Your task to perform on an android device: toggle location history Image 0: 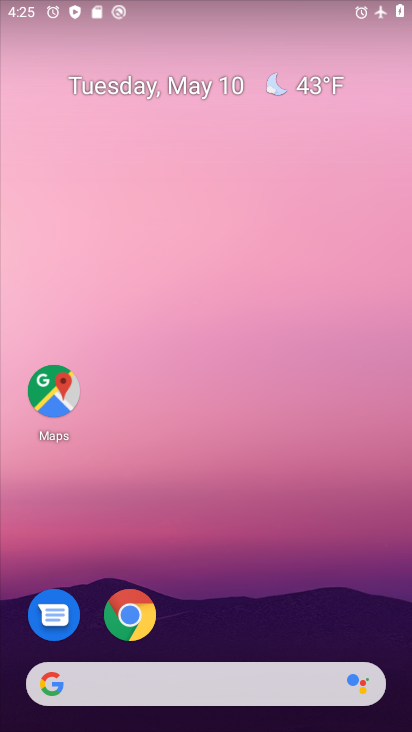
Step 0: drag from (298, 450) to (263, 0)
Your task to perform on an android device: toggle location history Image 1: 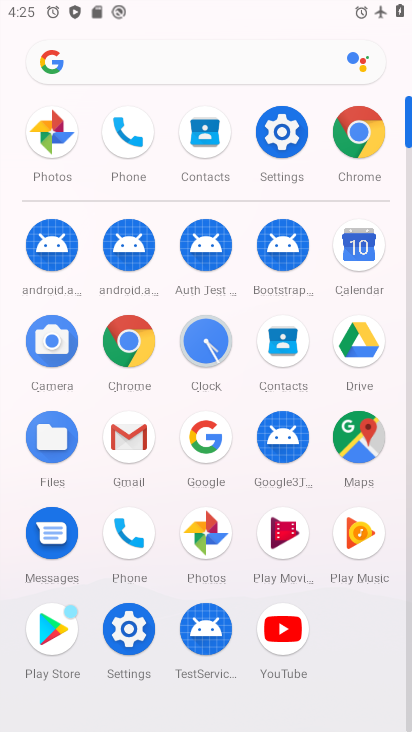
Step 1: click (127, 623)
Your task to perform on an android device: toggle location history Image 2: 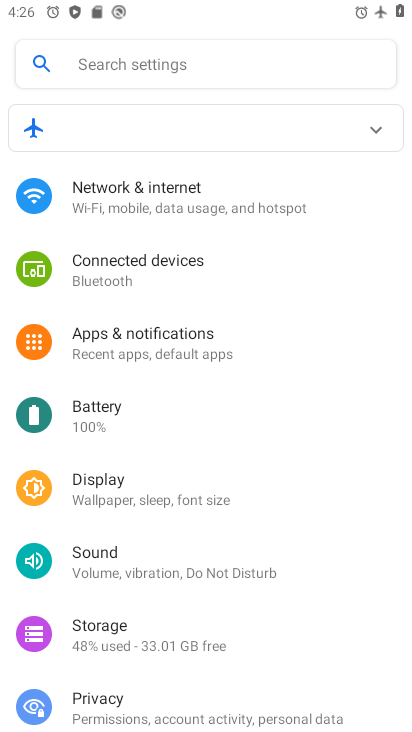
Step 2: drag from (322, 592) to (329, 156)
Your task to perform on an android device: toggle location history Image 3: 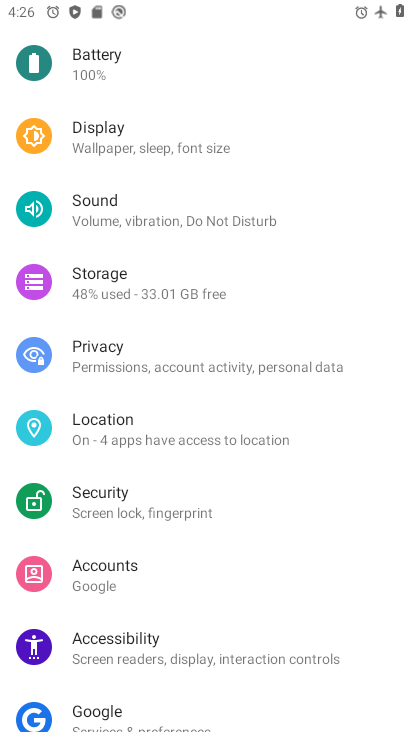
Step 3: click (163, 417)
Your task to perform on an android device: toggle location history Image 4: 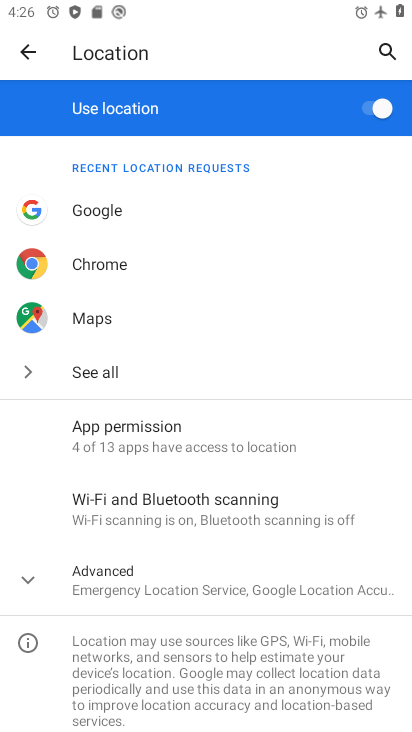
Step 4: click (24, 577)
Your task to perform on an android device: toggle location history Image 5: 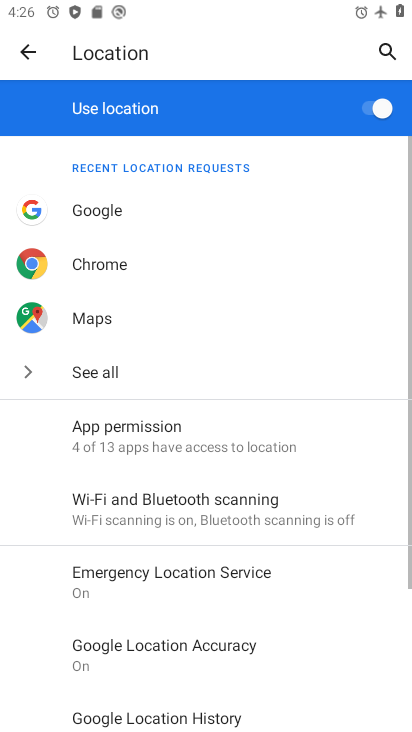
Step 5: drag from (234, 520) to (252, 231)
Your task to perform on an android device: toggle location history Image 6: 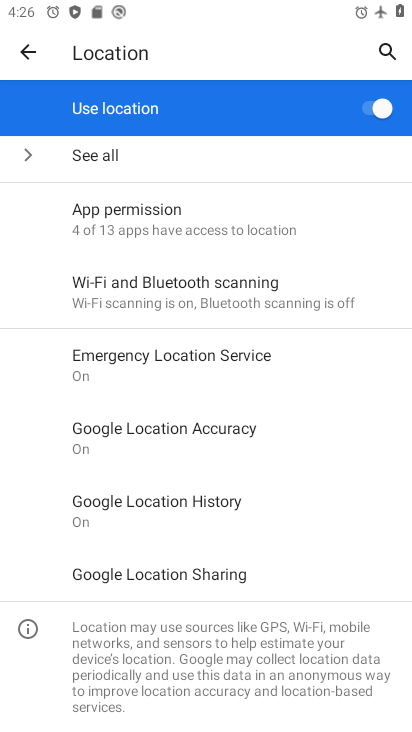
Step 6: click (238, 494)
Your task to perform on an android device: toggle location history Image 7: 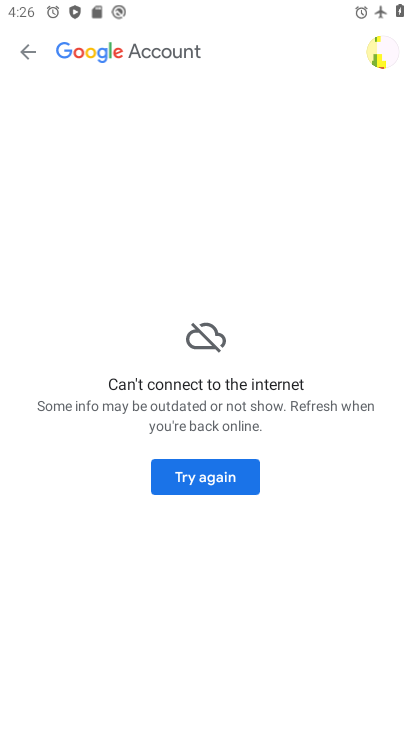
Step 7: click (219, 477)
Your task to perform on an android device: toggle location history Image 8: 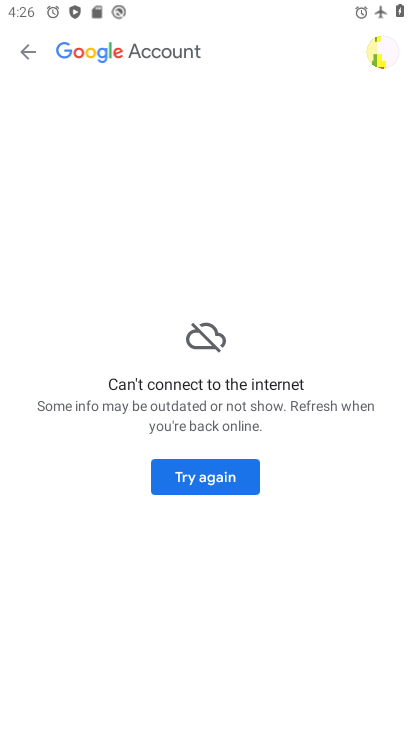
Step 8: click (218, 477)
Your task to perform on an android device: toggle location history Image 9: 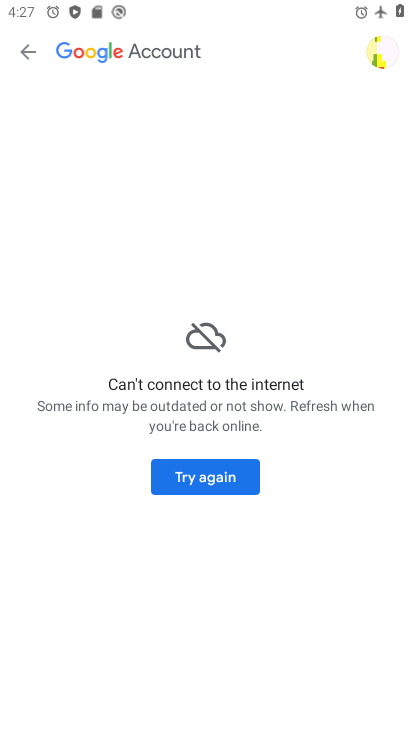
Step 9: task complete